Your task to perform on an android device: Open Amazon Image 0: 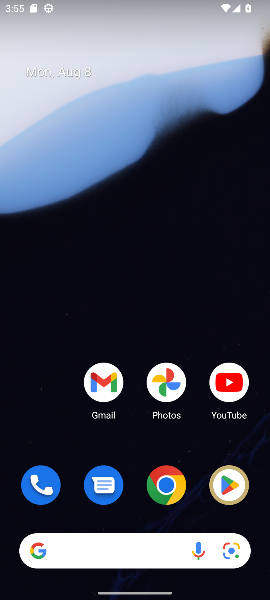
Step 0: drag from (137, 557) to (123, 80)
Your task to perform on an android device: Open Amazon Image 1: 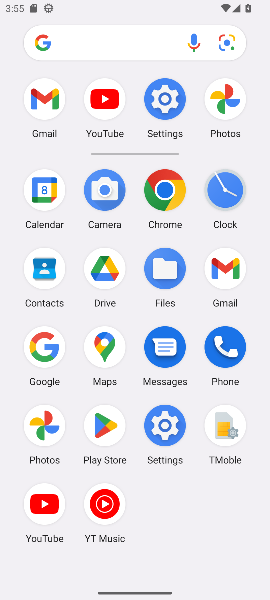
Step 1: click (154, 188)
Your task to perform on an android device: Open Amazon Image 2: 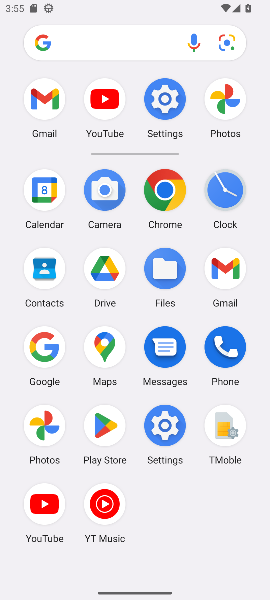
Step 2: click (154, 188)
Your task to perform on an android device: Open Amazon Image 3: 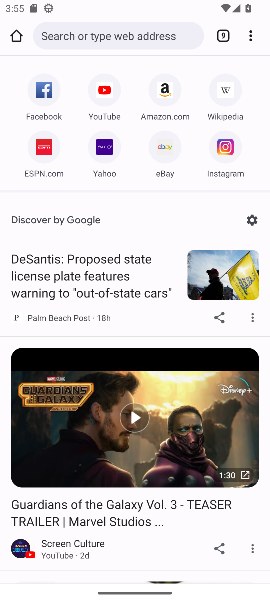
Step 3: click (152, 91)
Your task to perform on an android device: Open Amazon Image 4: 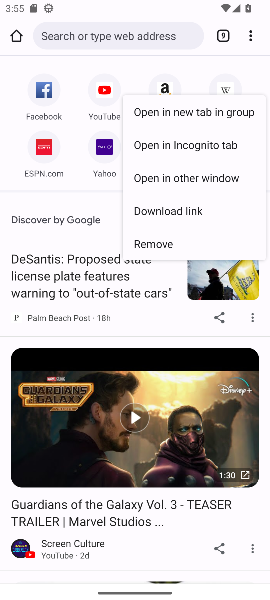
Step 4: click (160, 90)
Your task to perform on an android device: Open Amazon Image 5: 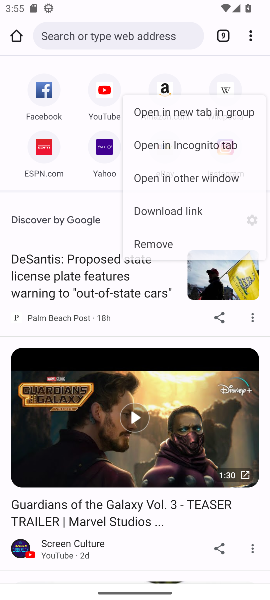
Step 5: click (160, 90)
Your task to perform on an android device: Open Amazon Image 6: 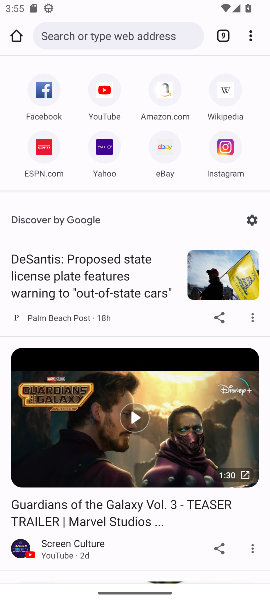
Step 6: click (164, 107)
Your task to perform on an android device: Open Amazon Image 7: 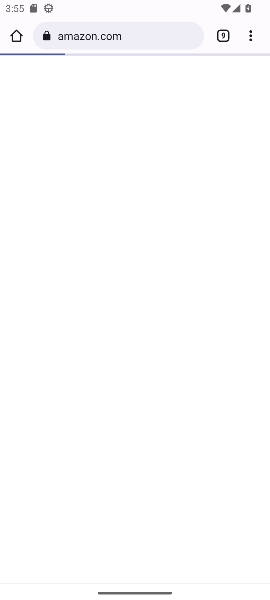
Step 7: click (168, 111)
Your task to perform on an android device: Open Amazon Image 8: 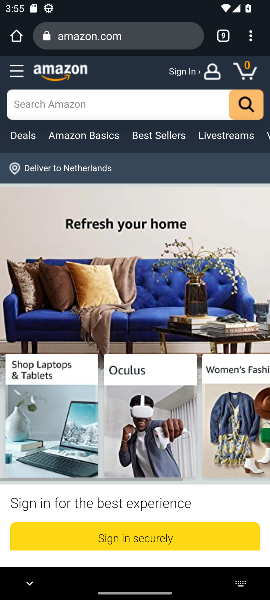
Step 8: task complete